Your task to perform on an android device: open app "VLC for Android" (install if not already installed) and enter user name: "Yves@outlook.com" and password: "internally" Image 0: 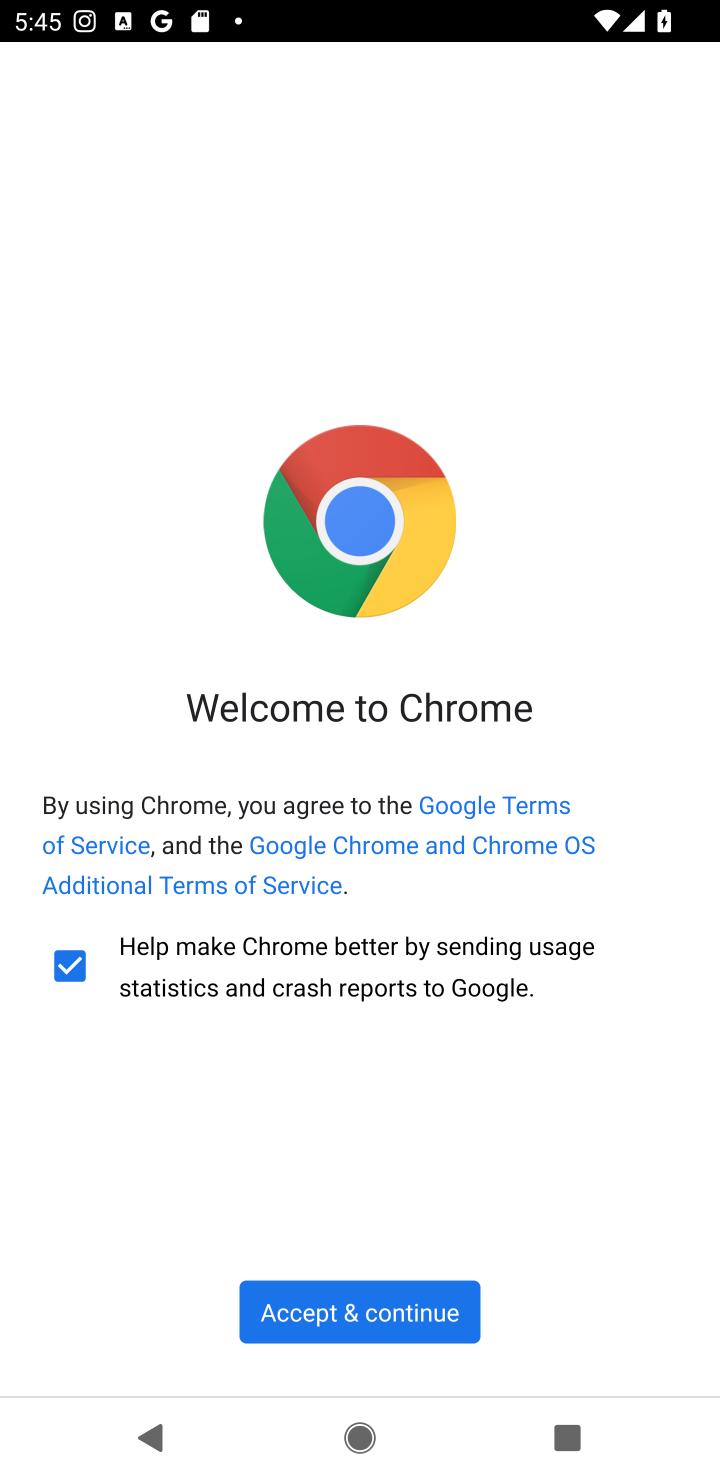
Step 0: press home button
Your task to perform on an android device: open app "VLC for Android" (install if not already installed) and enter user name: "Yves@outlook.com" and password: "internally" Image 1: 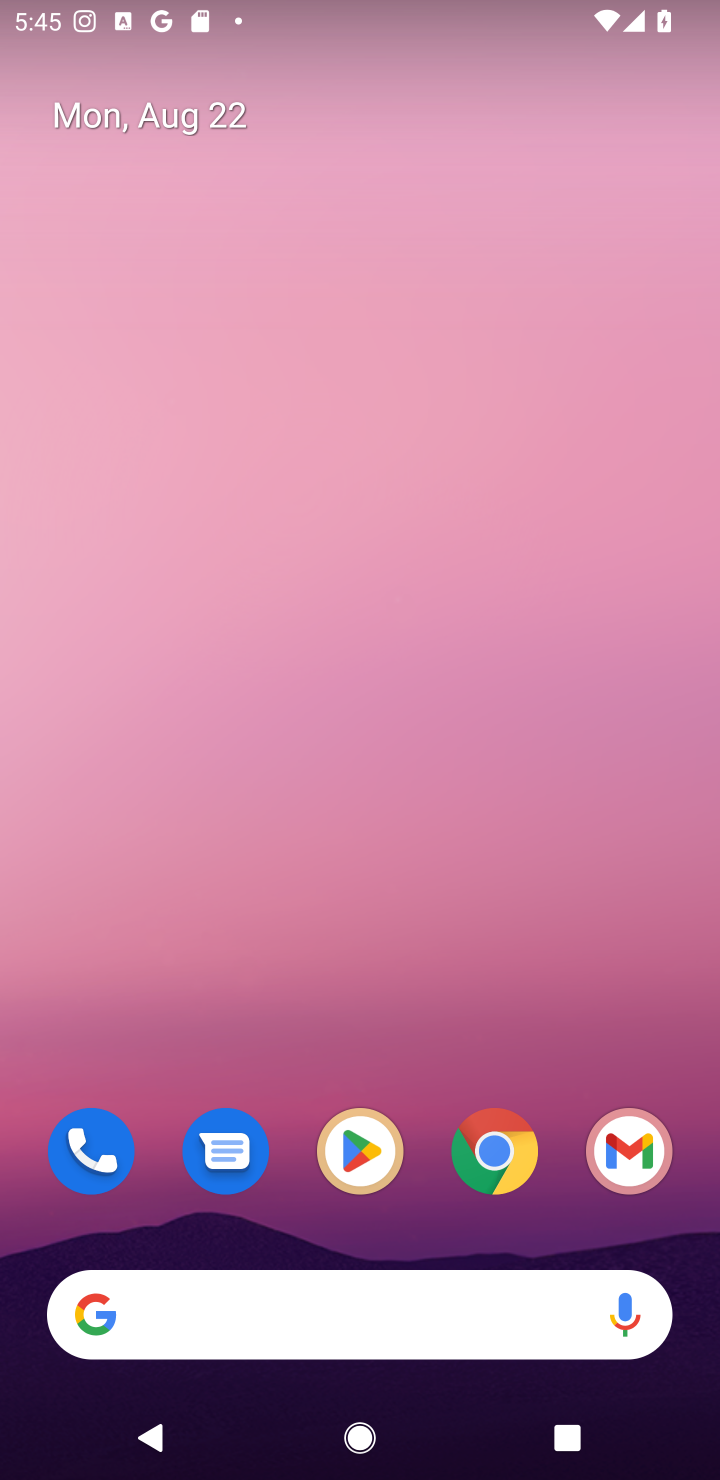
Step 1: click (355, 1147)
Your task to perform on an android device: open app "VLC for Android" (install if not already installed) and enter user name: "Yves@outlook.com" and password: "internally" Image 2: 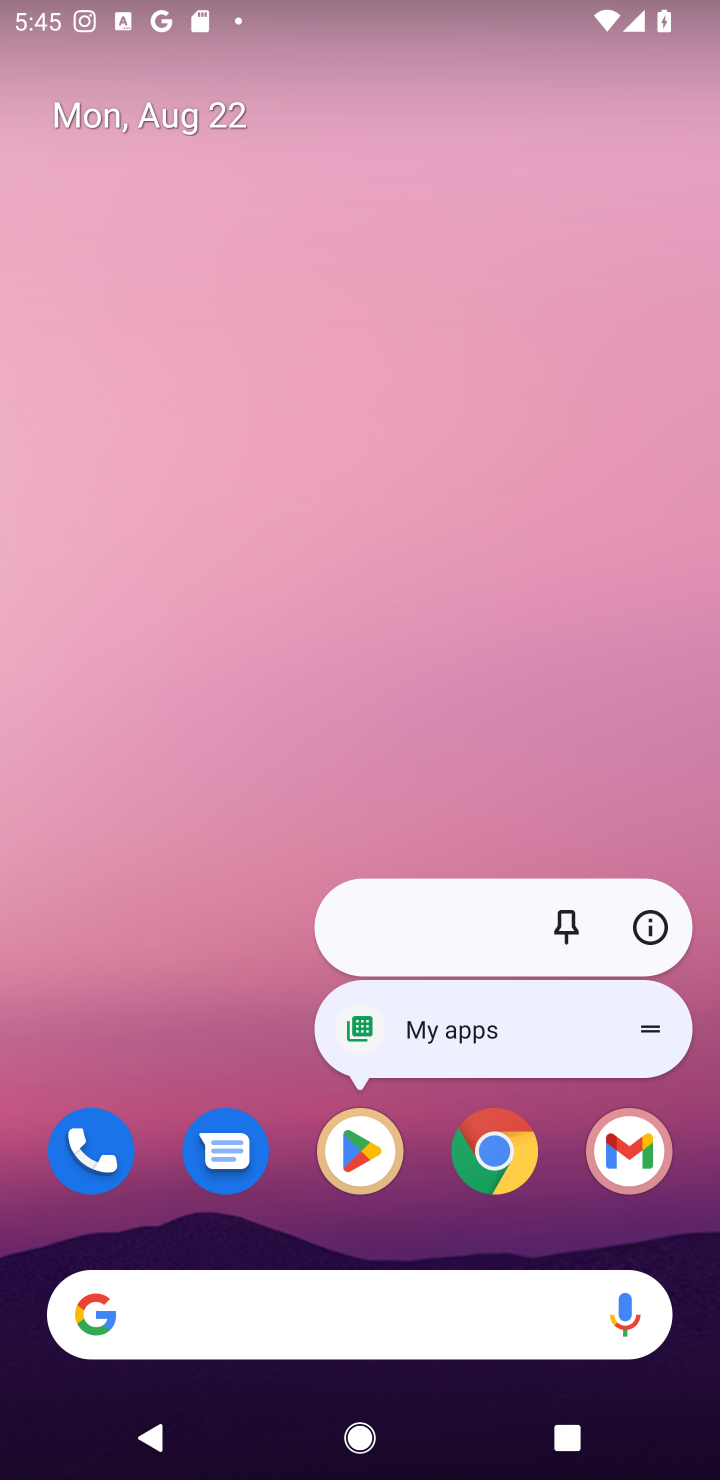
Step 2: click (355, 1147)
Your task to perform on an android device: open app "VLC for Android" (install if not already installed) and enter user name: "Yves@outlook.com" and password: "internally" Image 3: 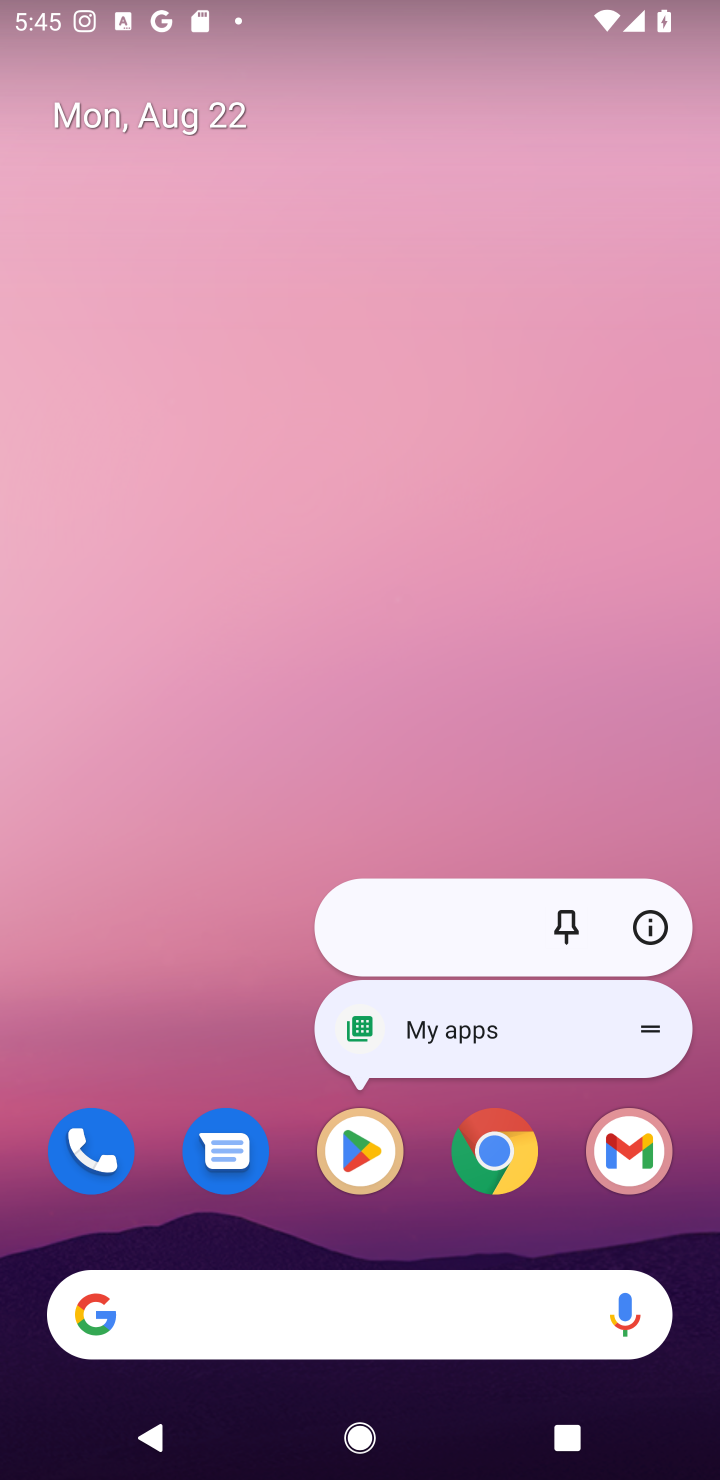
Step 3: click (355, 1149)
Your task to perform on an android device: open app "VLC for Android" (install if not already installed) and enter user name: "Yves@outlook.com" and password: "internally" Image 4: 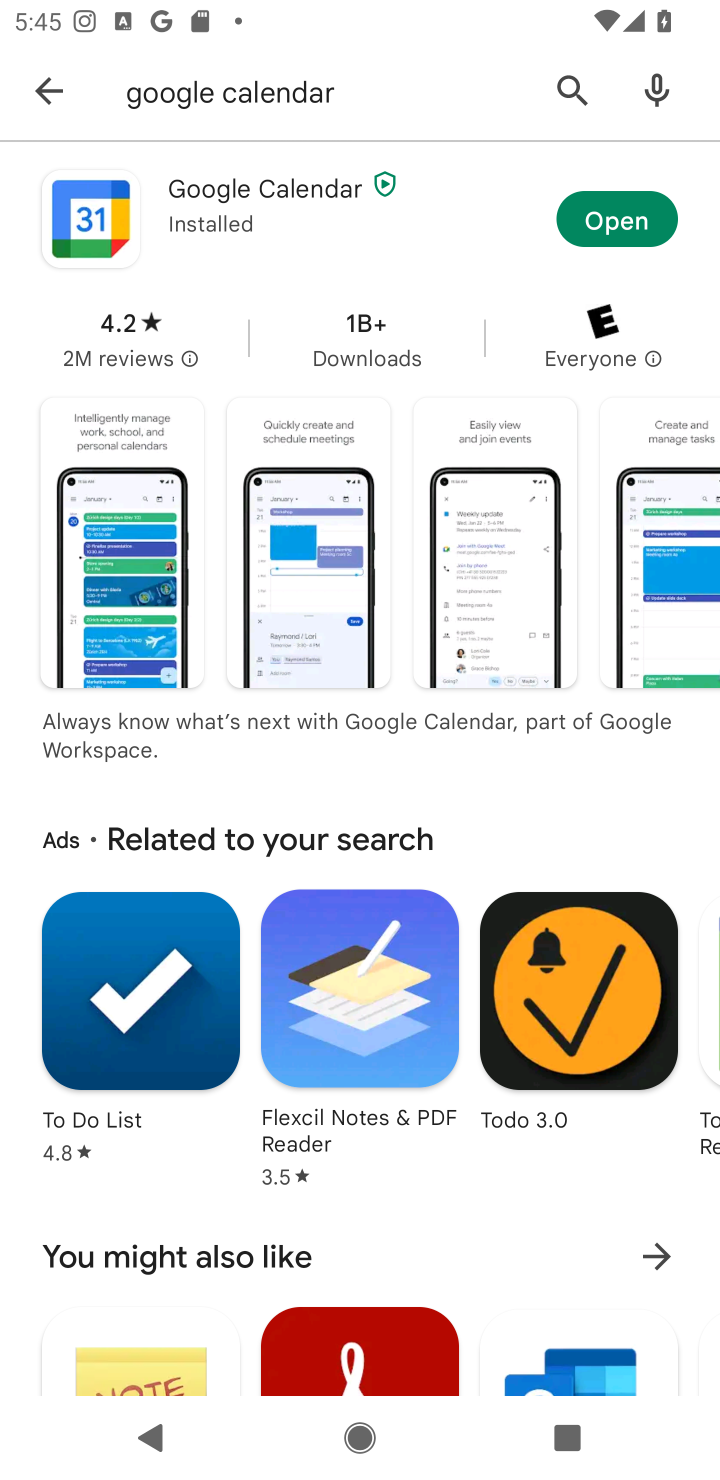
Step 4: click (564, 79)
Your task to perform on an android device: open app "VLC for Android" (install if not already installed) and enter user name: "Yves@outlook.com" and password: "internally" Image 5: 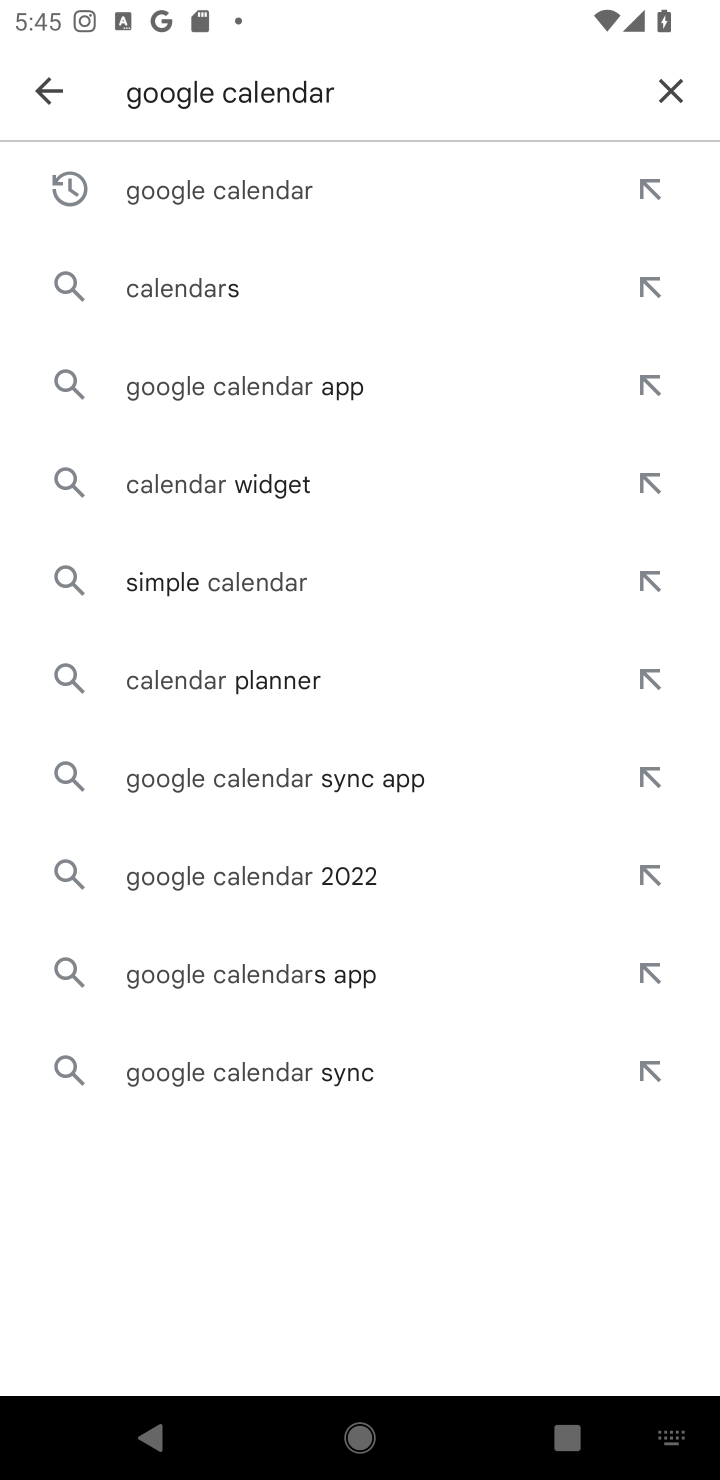
Step 5: click (680, 82)
Your task to perform on an android device: open app "VLC for Android" (install if not already installed) and enter user name: "Yves@outlook.com" and password: "internally" Image 6: 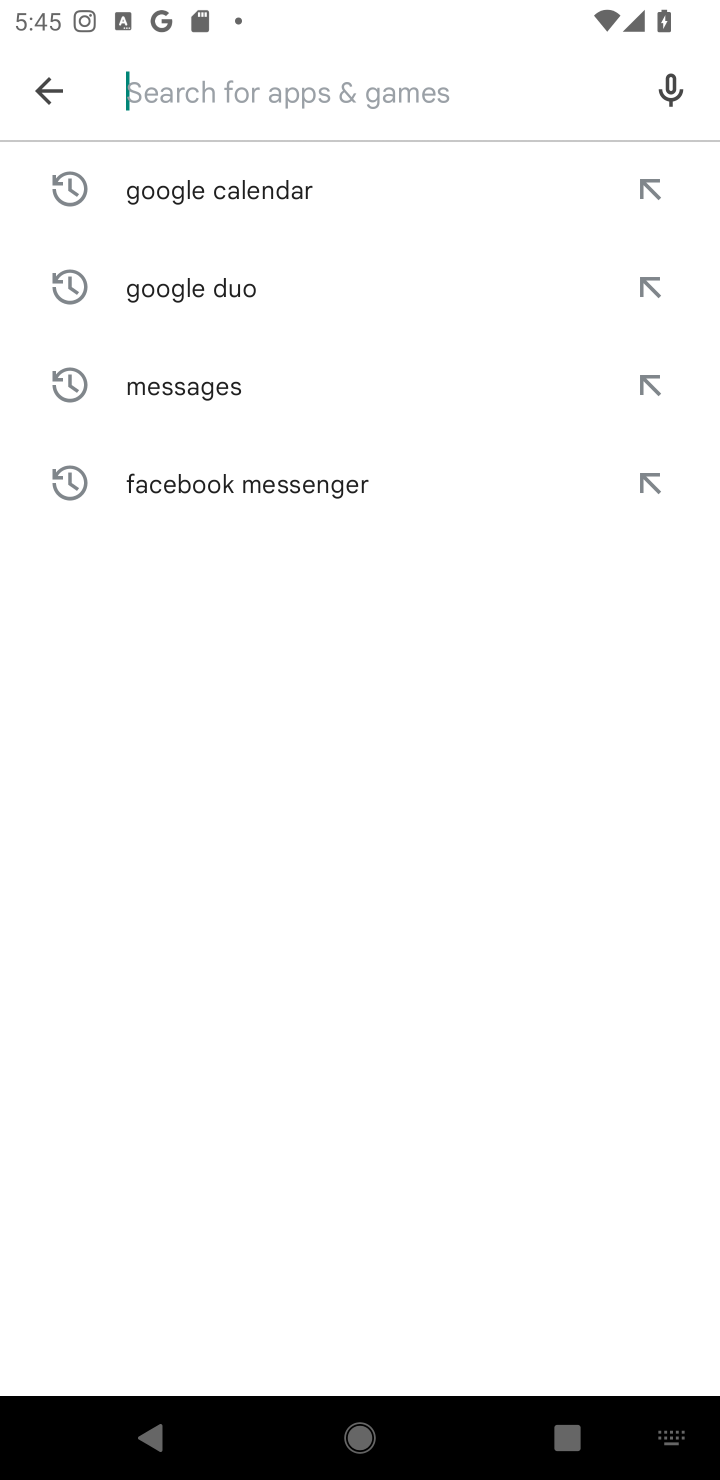
Step 6: type "VLC for Android"
Your task to perform on an android device: open app "VLC for Android" (install if not already installed) and enter user name: "Yves@outlook.com" and password: "internally" Image 7: 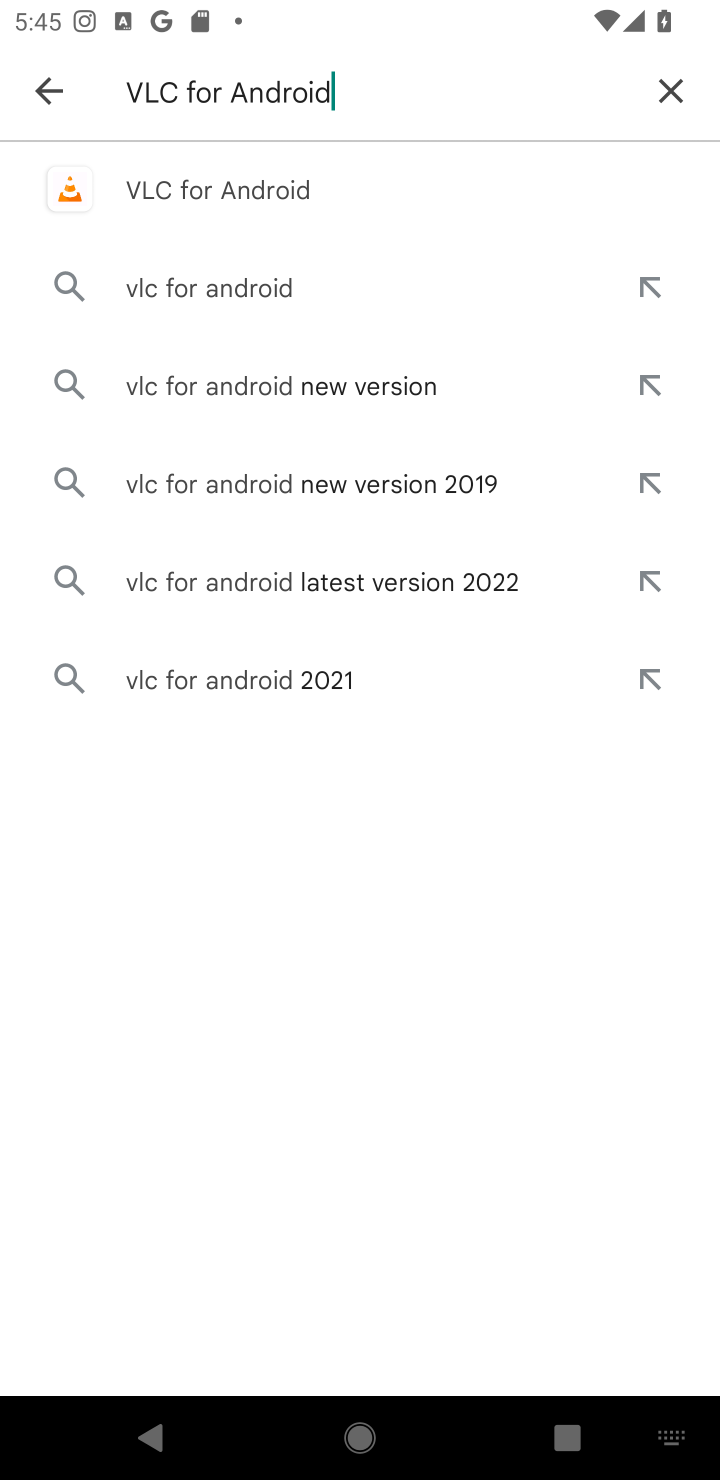
Step 7: click (291, 191)
Your task to perform on an android device: open app "VLC for Android" (install if not already installed) and enter user name: "Yves@outlook.com" and password: "internally" Image 8: 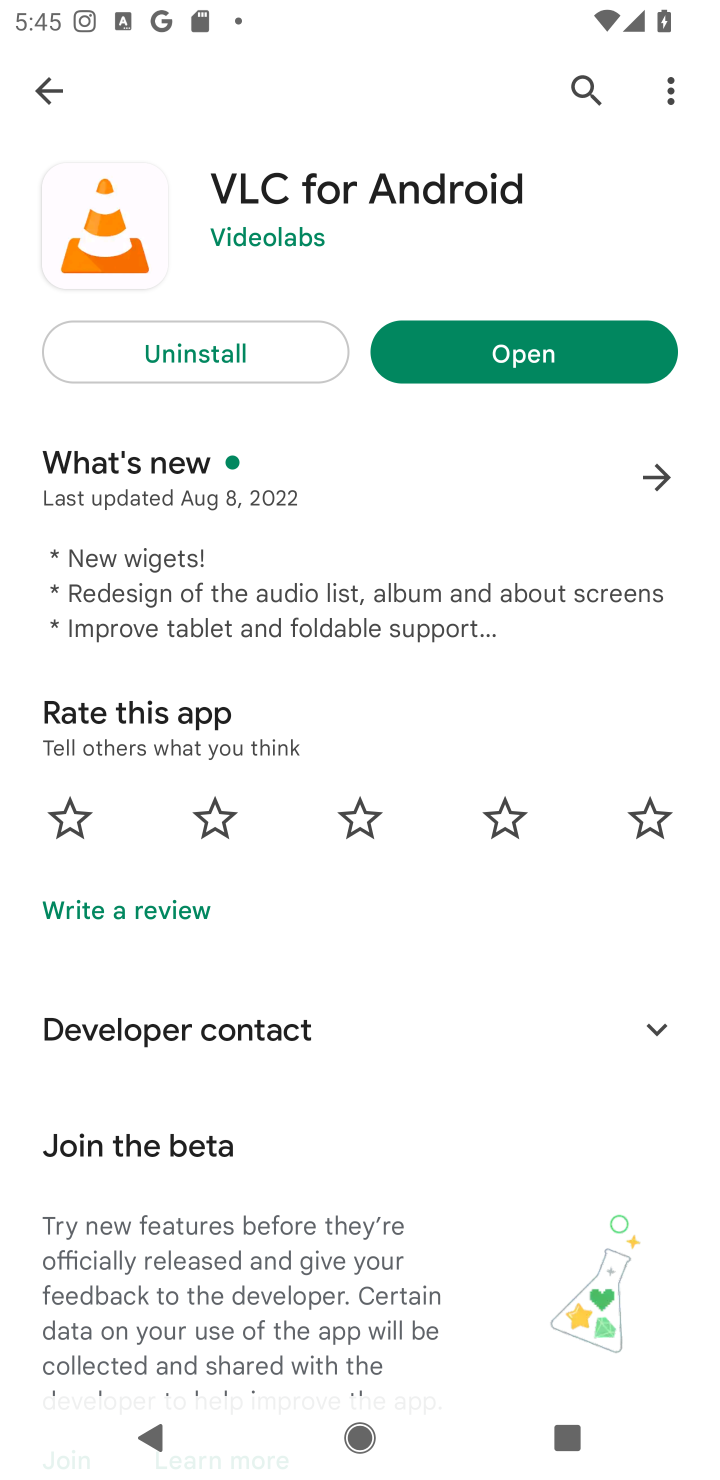
Step 8: click (556, 370)
Your task to perform on an android device: open app "VLC for Android" (install if not already installed) and enter user name: "Yves@outlook.com" and password: "internally" Image 9: 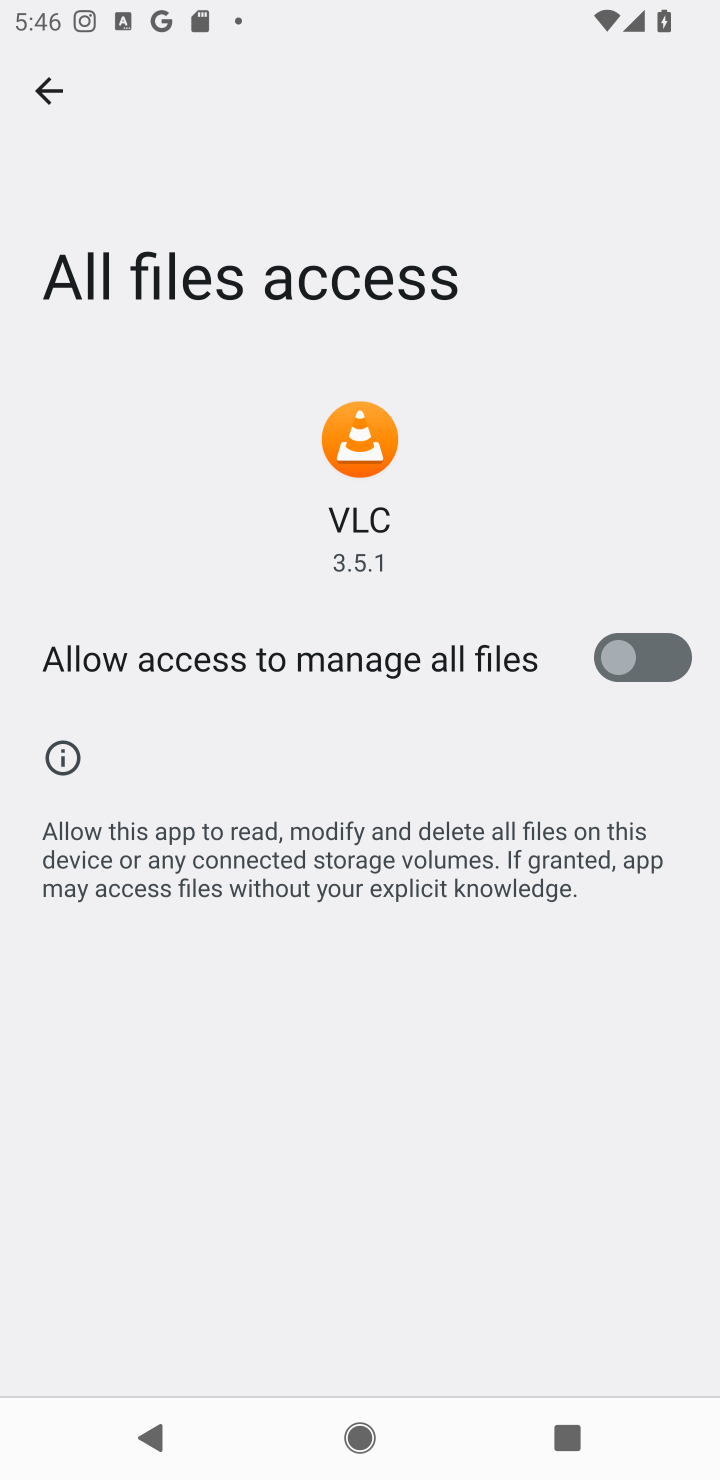
Step 9: task complete